Your task to perform on an android device: Go to battery settings Image 0: 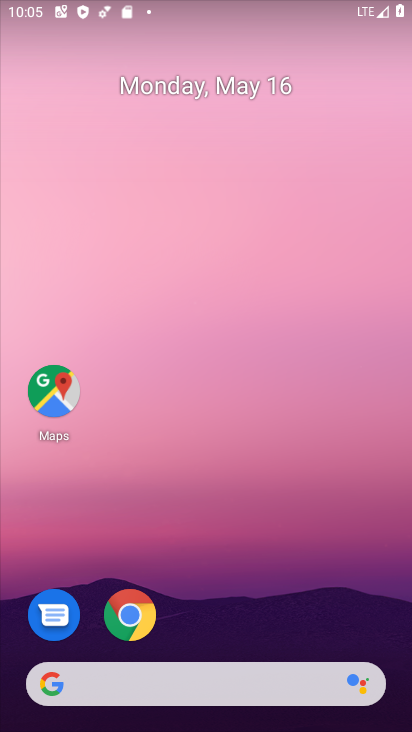
Step 0: drag from (264, 664) to (264, 224)
Your task to perform on an android device: Go to battery settings Image 1: 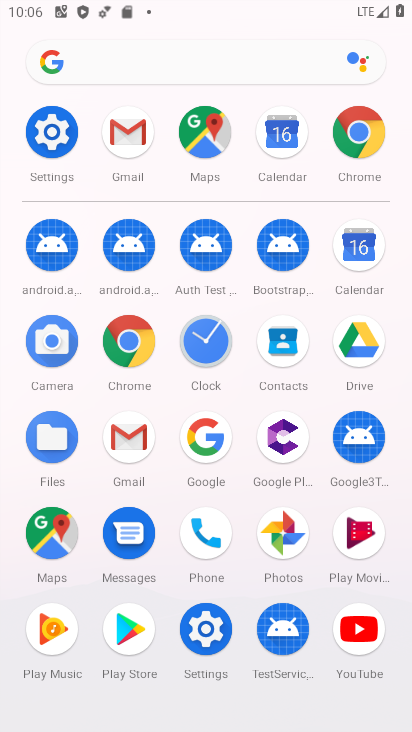
Step 1: click (51, 143)
Your task to perform on an android device: Go to battery settings Image 2: 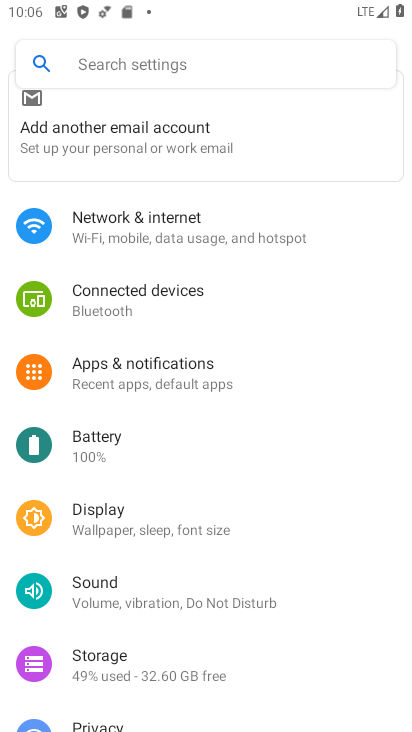
Step 2: click (171, 451)
Your task to perform on an android device: Go to battery settings Image 3: 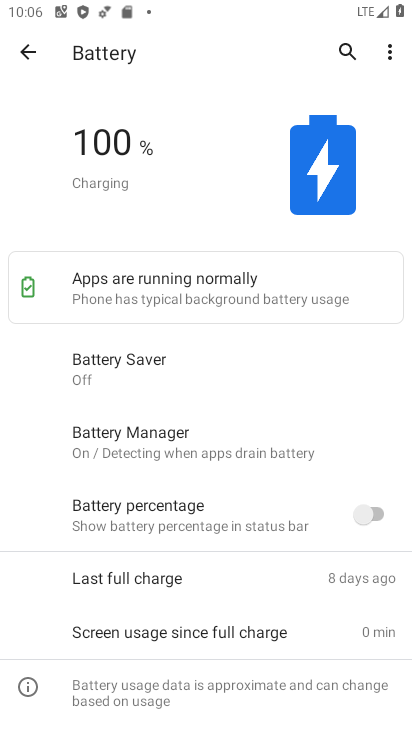
Step 3: task complete